Your task to perform on an android device: change the clock display to digital Image 0: 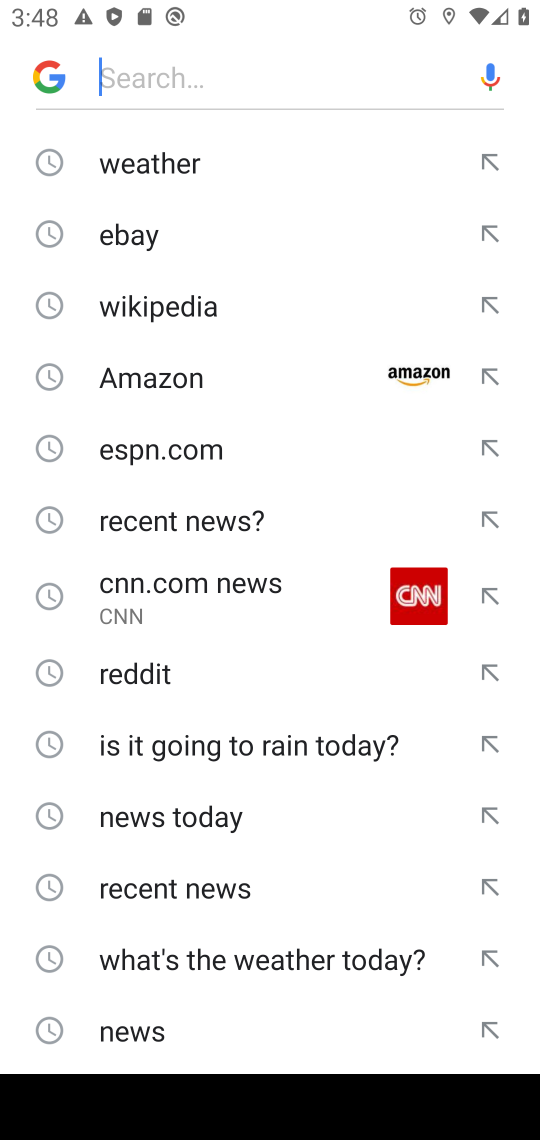
Step 0: press home button
Your task to perform on an android device: change the clock display to digital Image 1: 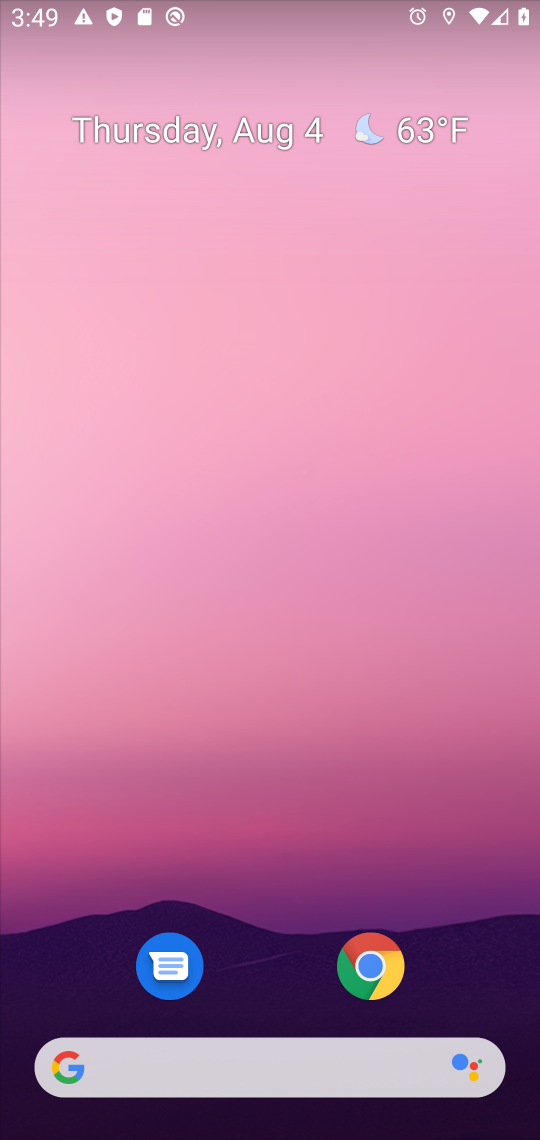
Step 1: drag from (250, 793) to (269, 65)
Your task to perform on an android device: change the clock display to digital Image 2: 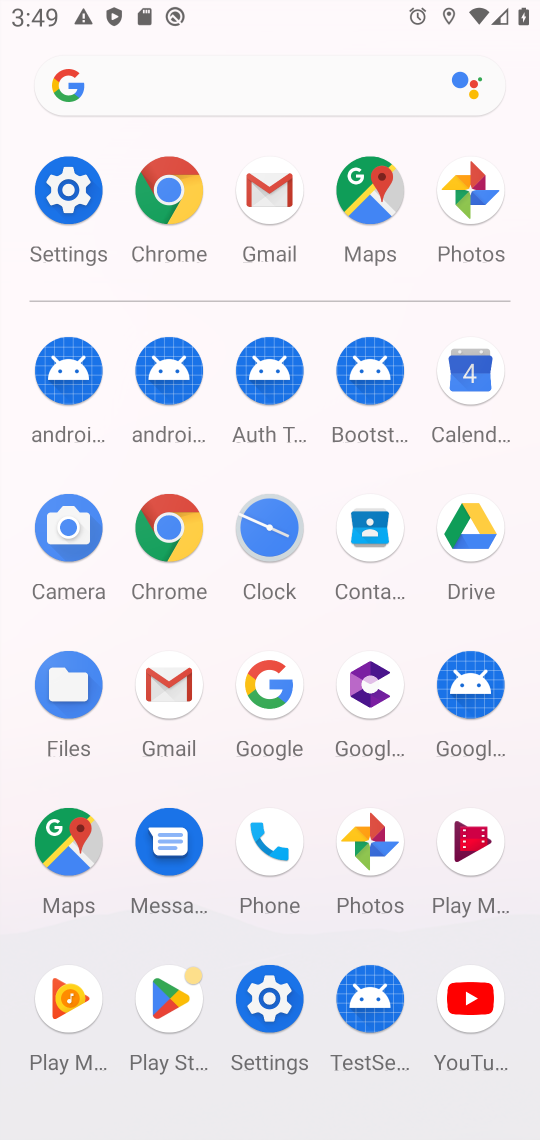
Step 2: click (258, 550)
Your task to perform on an android device: change the clock display to digital Image 3: 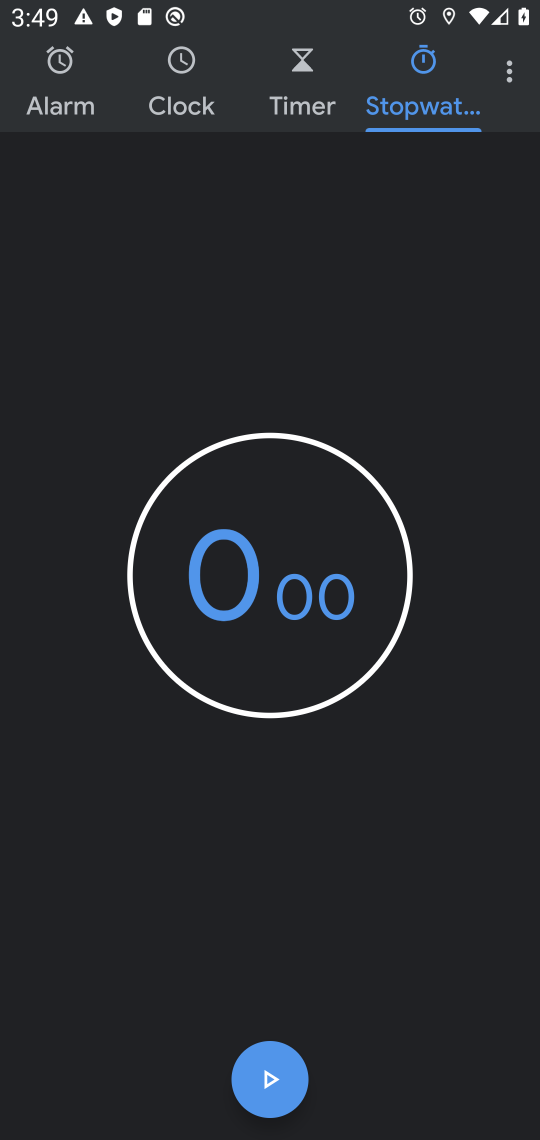
Step 3: click (512, 70)
Your task to perform on an android device: change the clock display to digital Image 4: 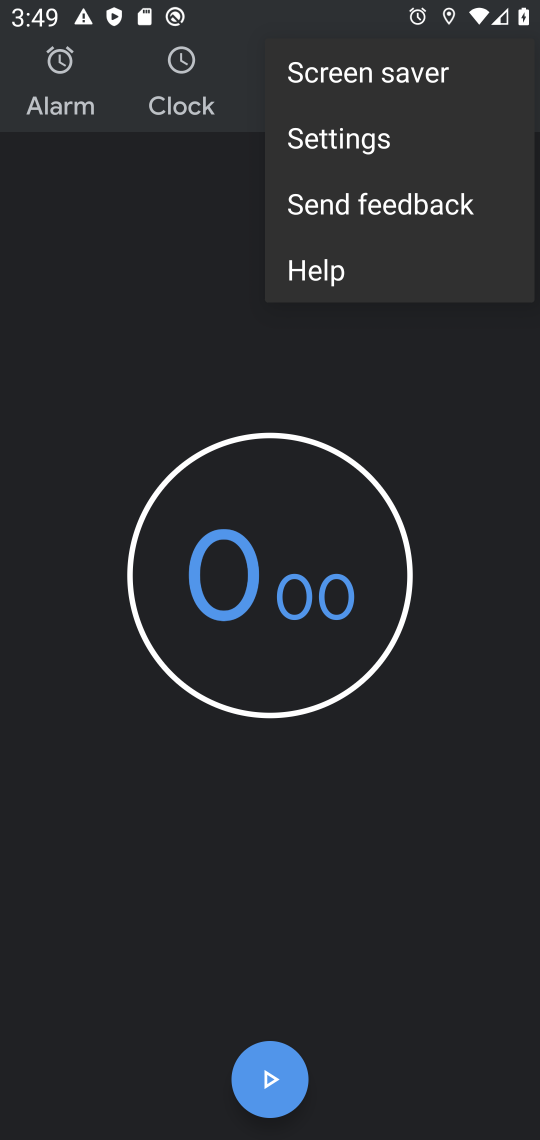
Step 4: click (348, 138)
Your task to perform on an android device: change the clock display to digital Image 5: 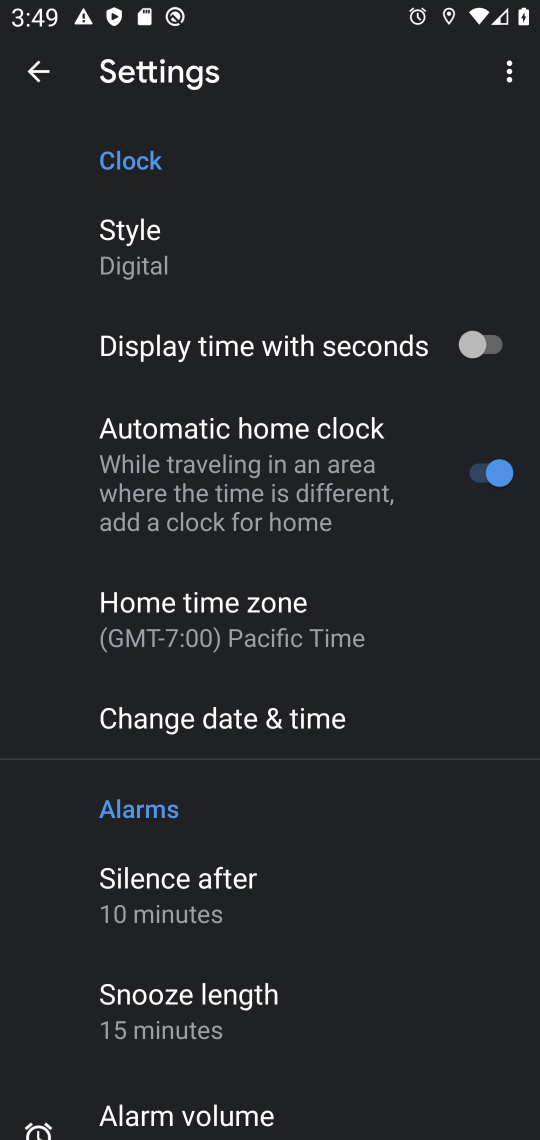
Step 5: click (128, 243)
Your task to perform on an android device: change the clock display to digital Image 6: 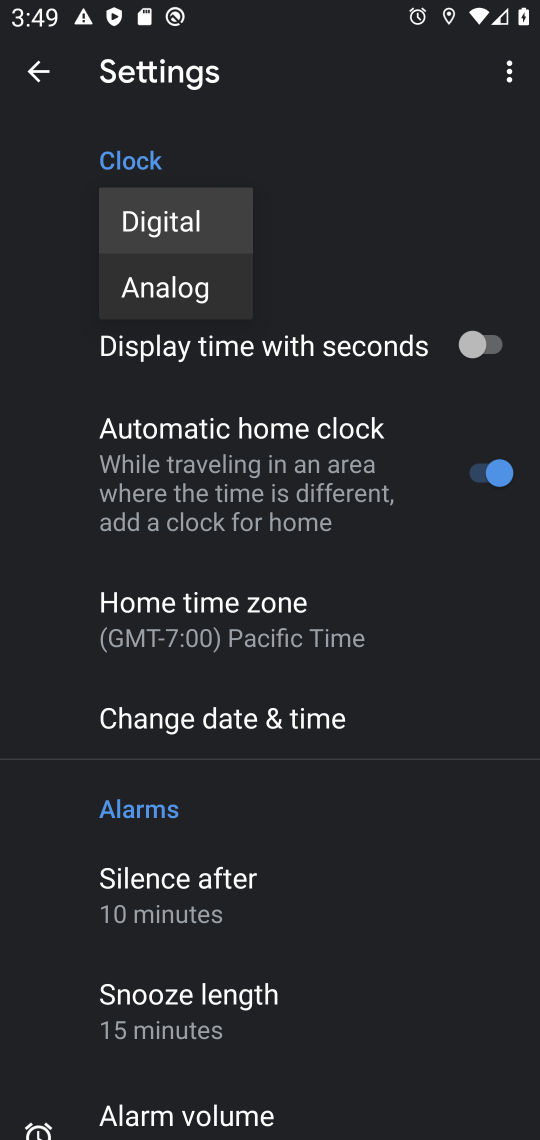
Step 6: task complete